Your task to perform on an android device: toggle notification dots Image 0: 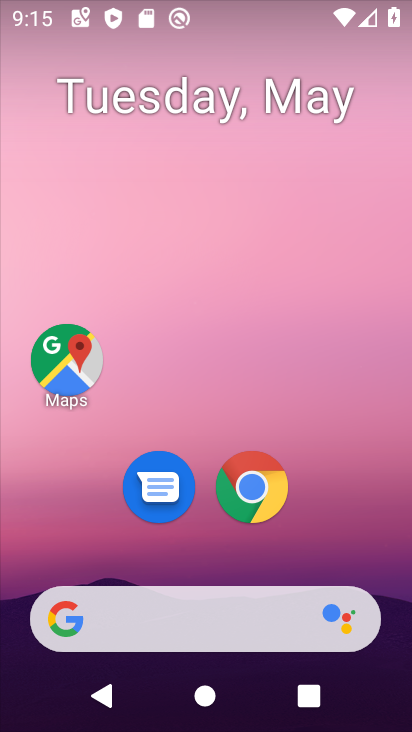
Step 0: drag from (379, 563) to (387, 245)
Your task to perform on an android device: toggle notification dots Image 1: 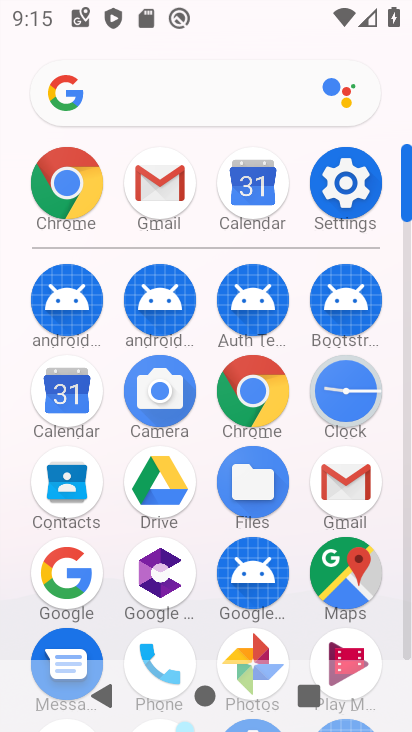
Step 1: click (331, 199)
Your task to perform on an android device: toggle notification dots Image 2: 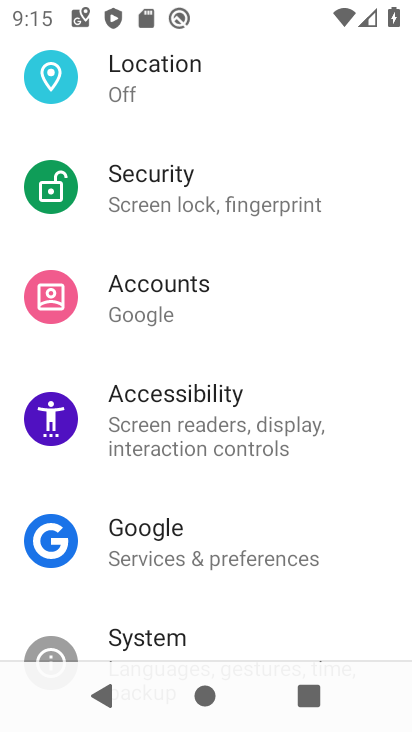
Step 2: drag from (343, 290) to (346, 366)
Your task to perform on an android device: toggle notification dots Image 3: 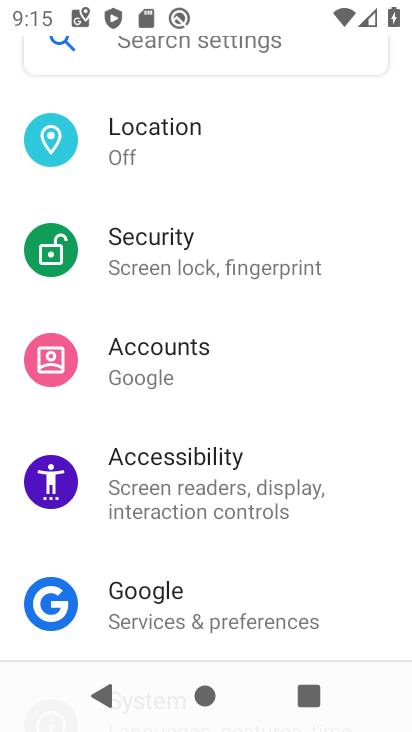
Step 3: drag from (348, 252) to (349, 376)
Your task to perform on an android device: toggle notification dots Image 4: 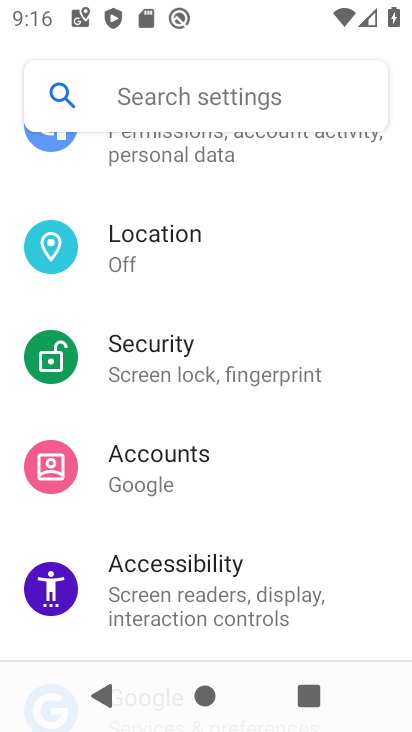
Step 4: drag from (345, 245) to (349, 336)
Your task to perform on an android device: toggle notification dots Image 5: 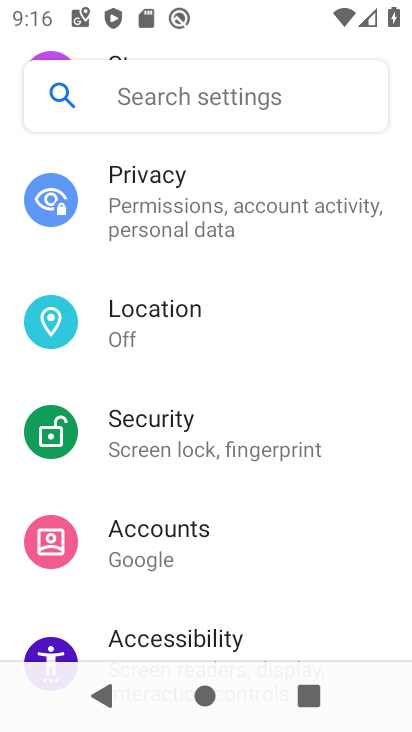
Step 5: drag from (331, 182) to (327, 367)
Your task to perform on an android device: toggle notification dots Image 6: 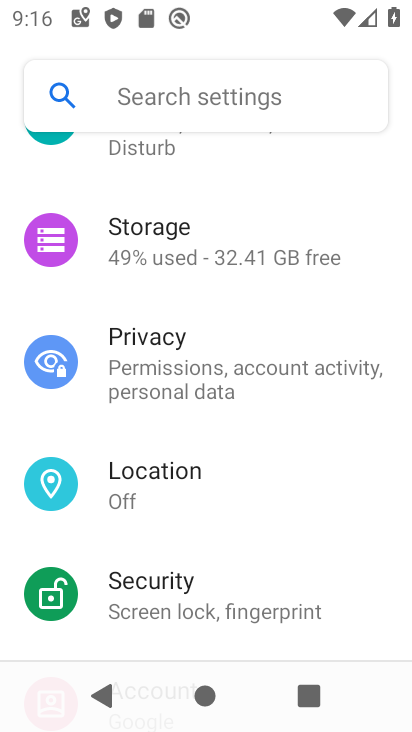
Step 6: drag from (344, 208) to (348, 342)
Your task to perform on an android device: toggle notification dots Image 7: 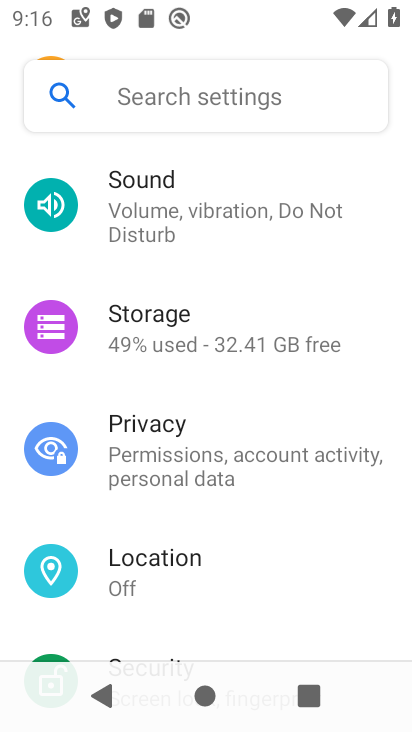
Step 7: drag from (363, 203) to (360, 360)
Your task to perform on an android device: toggle notification dots Image 8: 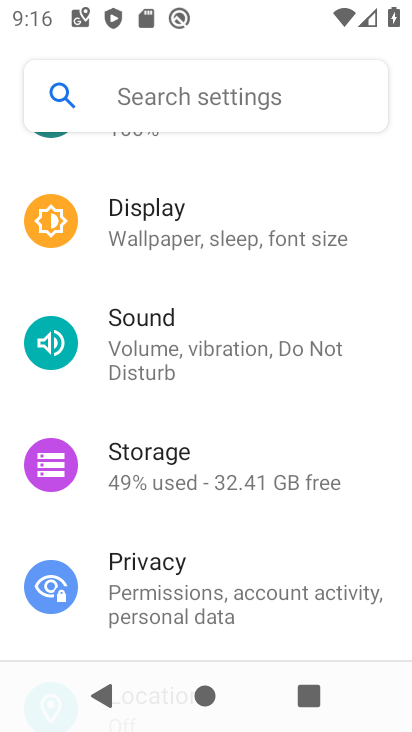
Step 8: drag from (358, 218) to (362, 337)
Your task to perform on an android device: toggle notification dots Image 9: 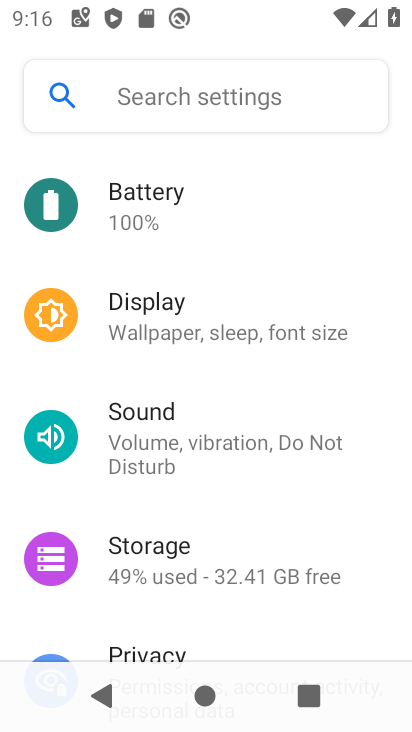
Step 9: drag from (349, 221) to (359, 345)
Your task to perform on an android device: toggle notification dots Image 10: 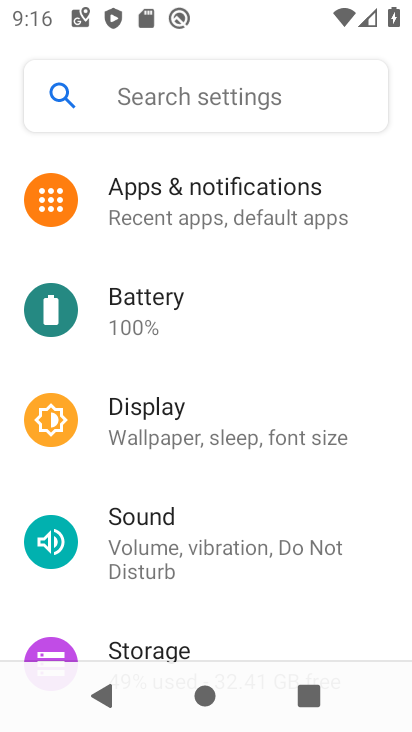
Step 10: drag from (361, 175) to (360, 309)
Your task to perform on an android device: toggle notification dots Image 11: 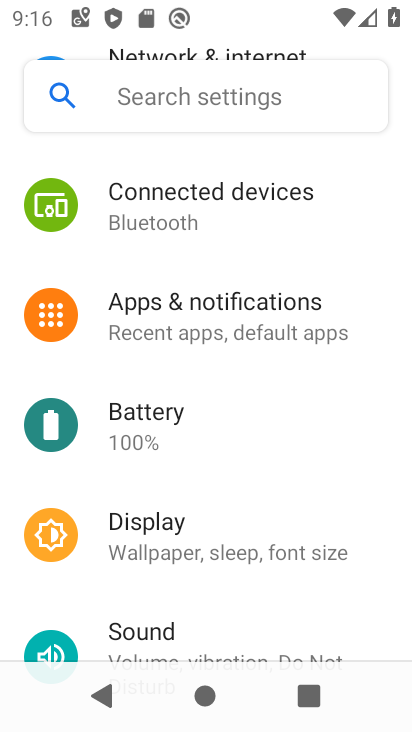
Step 11: drag from (353, 192) to (352, 310)
Your task to perform on an android device: toggle notification dots Image 12: 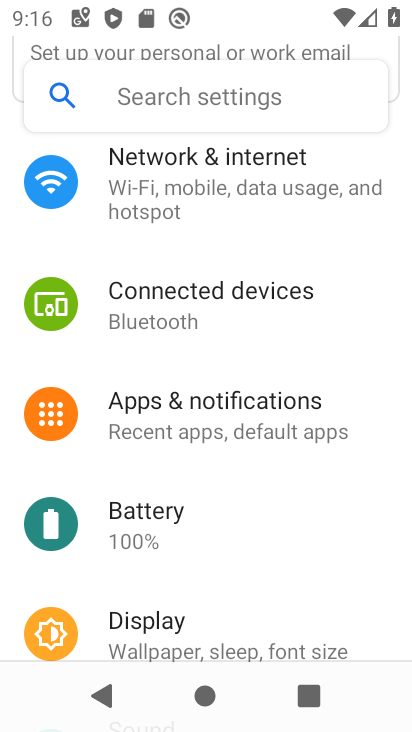
Step 12: drag from (346, 163) to (342, 296)
Your task to perform on an android device: toggle notification dots Image 13: 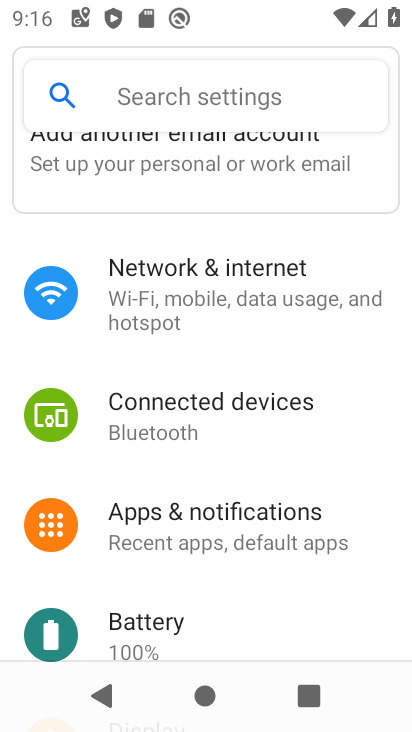
Step 13: drag from (330, 456) to (340, 341)
Your task to perform on an android device: toggle notification dots Image 14: 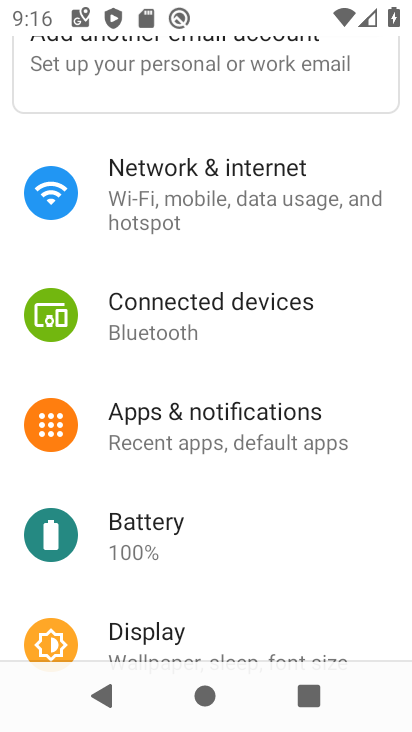
Step 14: click (276, 430)
Your task to perform on an android device: toggle notification dots Image 15: 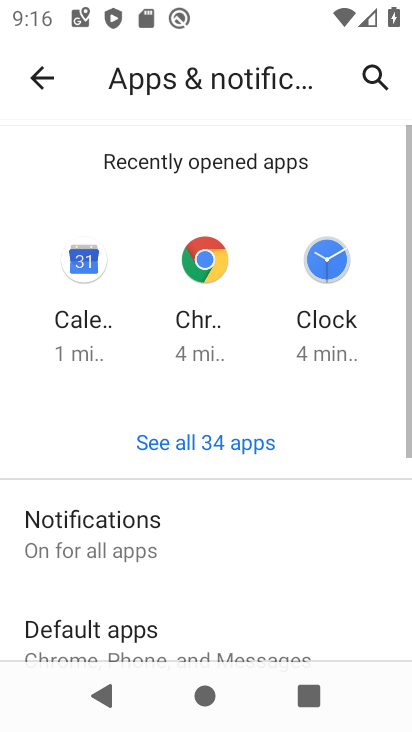
Step 15: drag from (278, 526) to (287, 404)
Your task to perform on an android device: toggle notification dots Image 16: 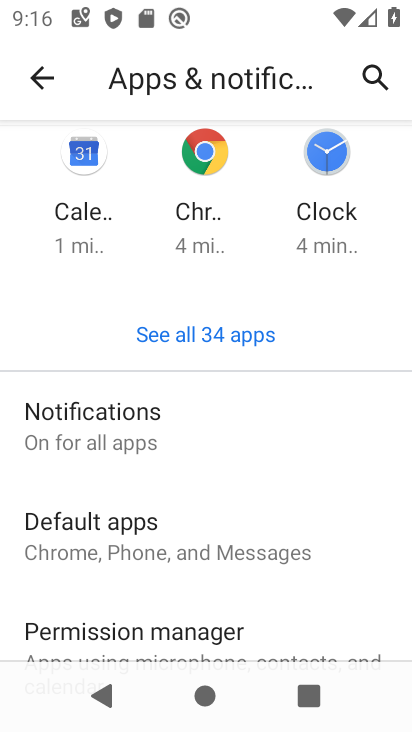
Step 16: drag from (270, 497) to (280, 404)
Your task to perform on an android device: toggle notification dots Image 17: 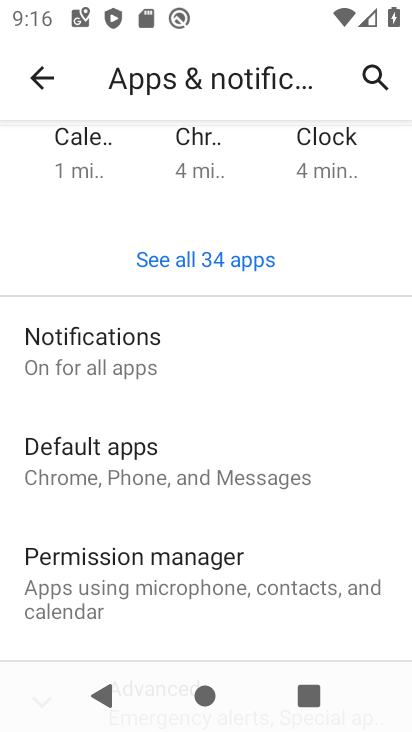
Step 17: click (138, 351)
Your task to perform on an android device: toggle notification dots Image 18: 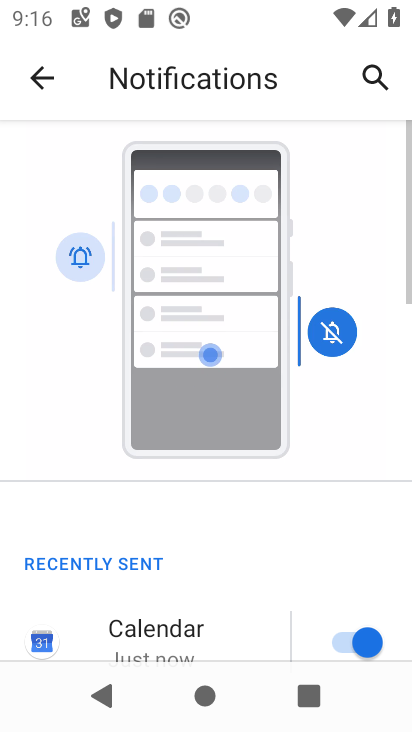
Step 18: drag from (300, 485) to (295, 331)
Your task to perform on an android device: toggle notification dots Image 19: 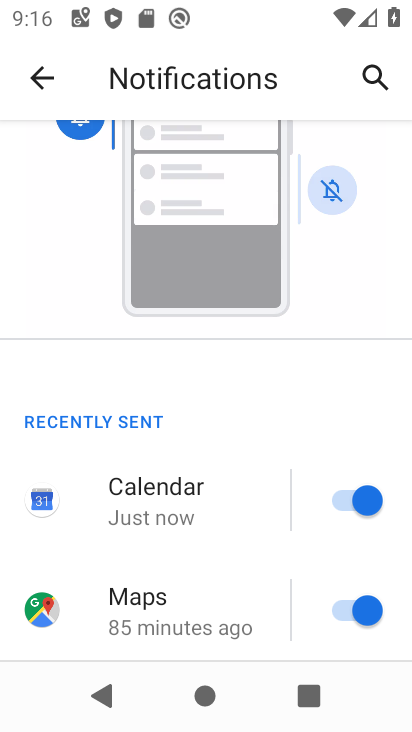
Step 19: drag from (247, 509) to (242, 368)
Your task to perform on an android device: toggle notification dots Image 20: 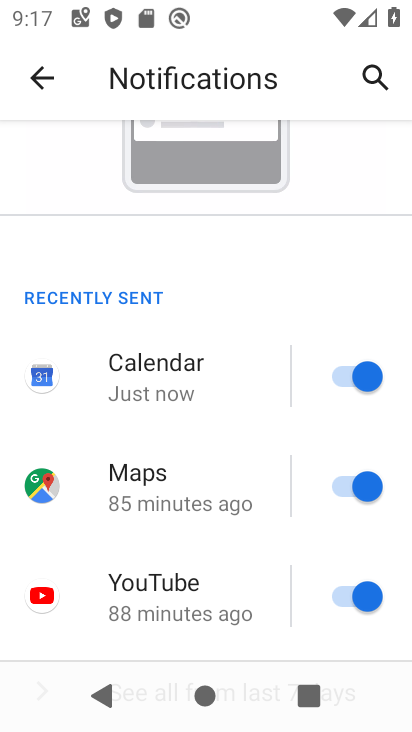
Step 20: drag from (252, 554) to (256, 384)
Your task to perform on an android device: toggle notification dots Image 21: 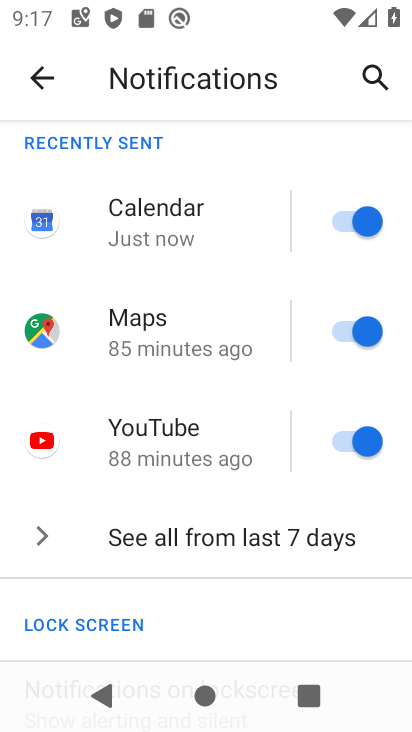
Step 21: drag from (245, 566) to (255, 408)
Your task to perform on an android device: toggle notification dots Image 22: 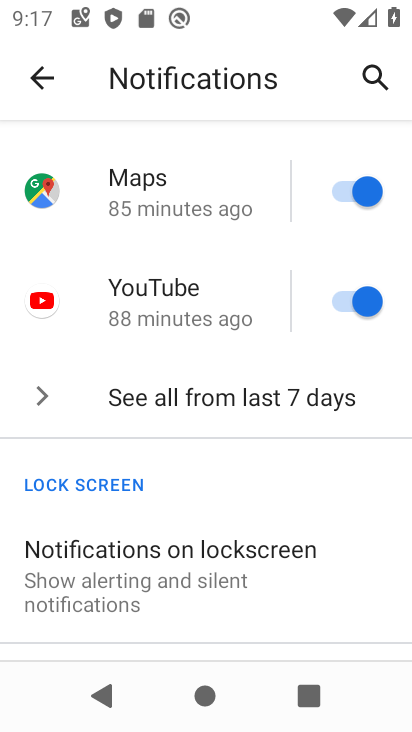
Step 22: drag from (257, 600) to (243, 428)
Your task to perform on an android device: toggle notification dots Image 23: 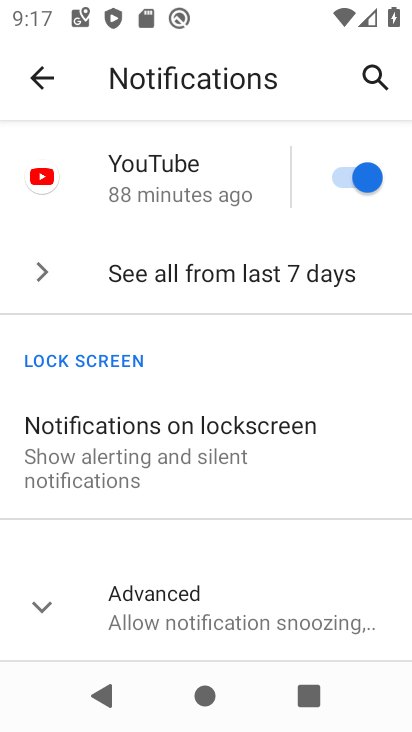
Step 23: drag from (257, 571) to (261, 449)
Your task to perform on an android device: toggle notification dots Image 24: 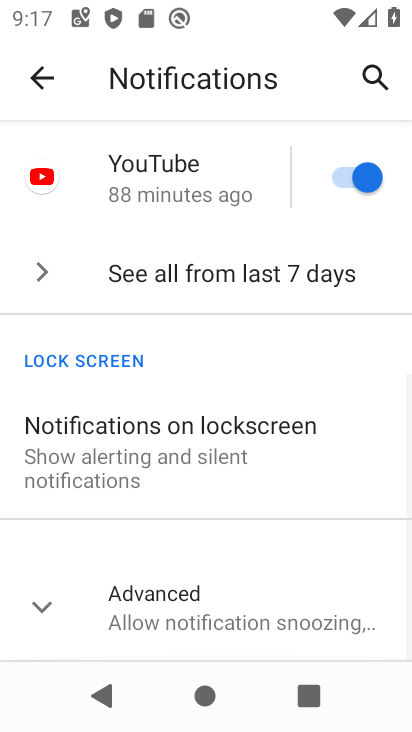
Step 24: click (229, 593)
Your task to perform on an android device: toggle notification dots Image 25: 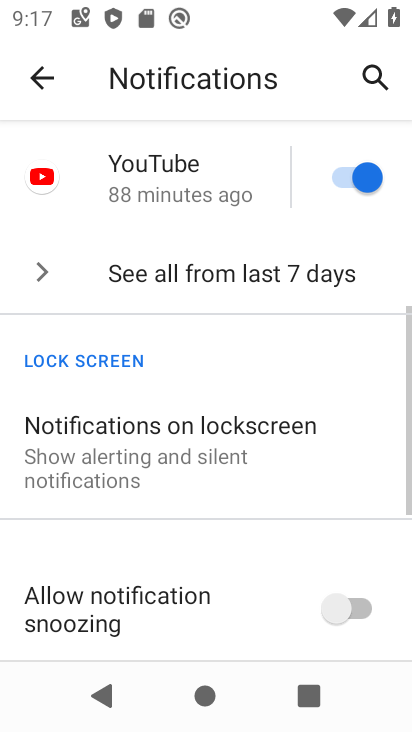
Step 25: drag from (270, 575) to (258, 448)
Your task to perform on an android device: toggle notification dots Image 26: 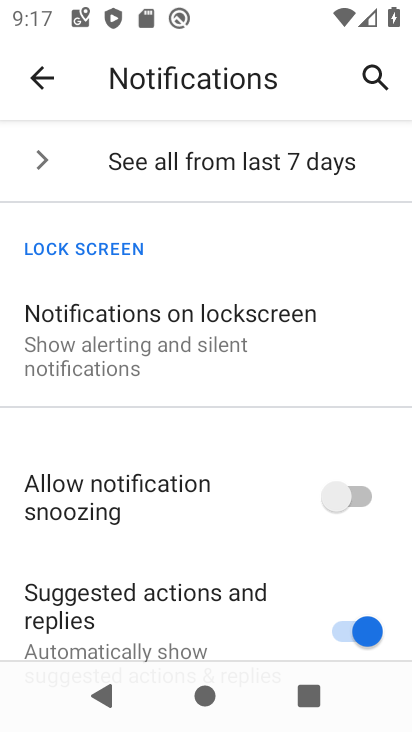
Step 26: drag from (268, 543) to (270, 406)
Your task to perform on an android device: toggle notification dots Image 27: 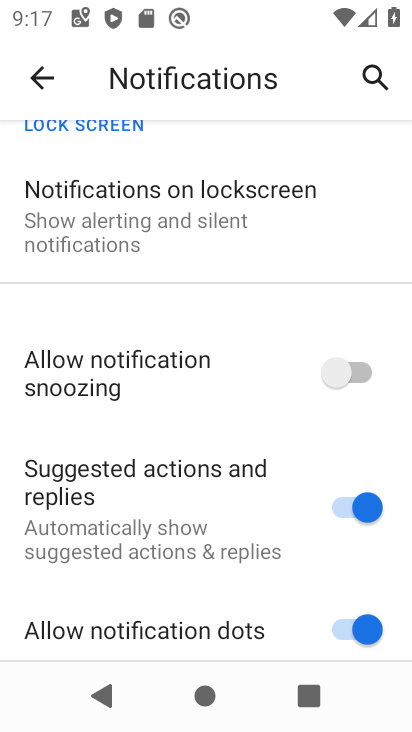
Step 27: drag from (267, 594) to (269, 470)
Your task to perform on an android device: toggle notification dots Image 28: 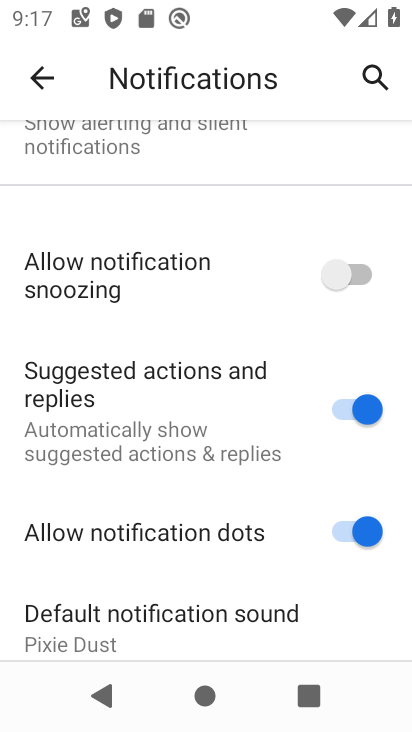
Step 28: click (370, 540)
Your task to perform on an android device: toggle notification dots Image 29: 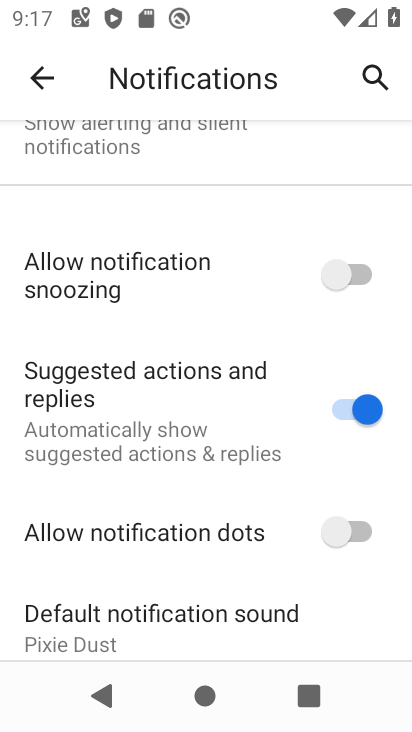
Step 29: task complete